Your task to perform on an android device: turn off priority inbox in the gmail app Image 0: 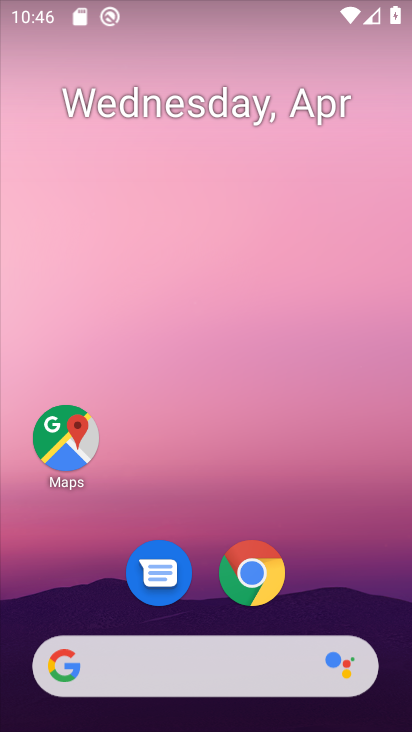
Step 0: drag from (365, 486) to (363, 8)
Your task to perform on an android device: turn off priority inbox in the gmail app Image 1: 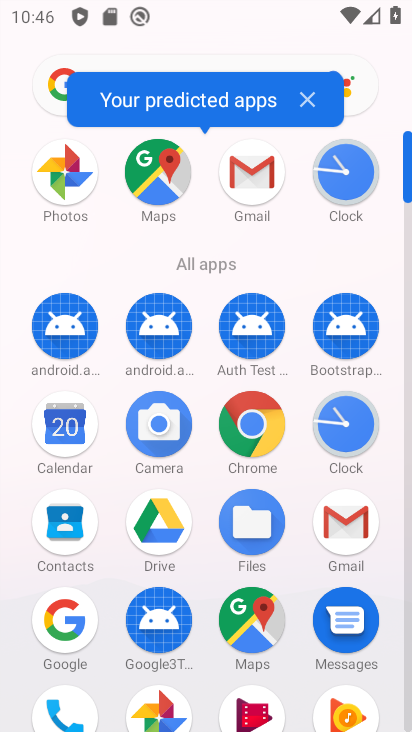
Step 1: click (251, 179)
Your task to perform on an android device: turn off priority inbox in the gmail app Image 2: 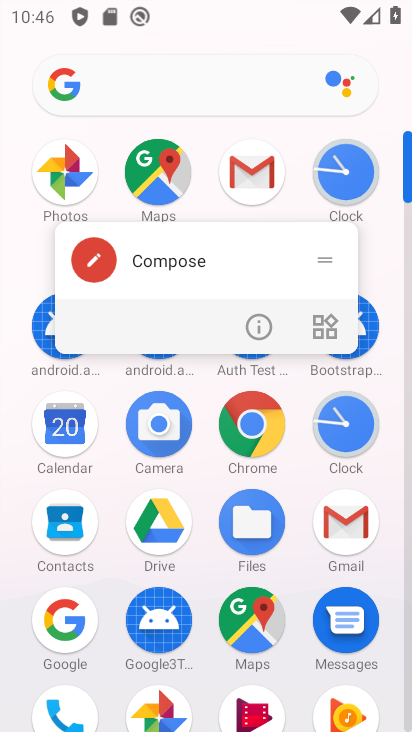
Step 2: click (254, 177)
Your task to perform on an android device: turn off priority inbox in the gmail app Image 3: 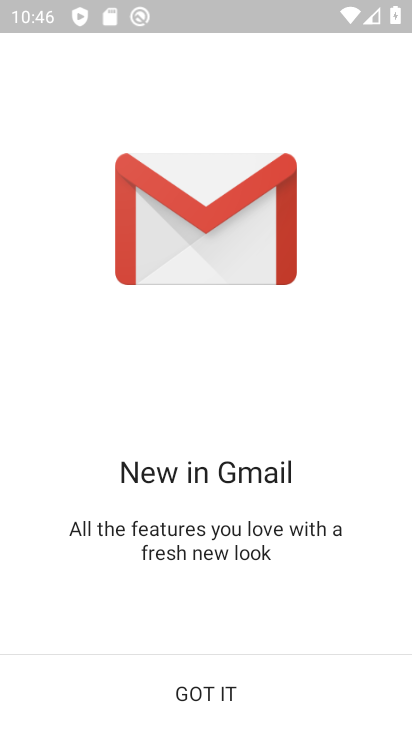
Step 3: click (192, 696)
Your task to perform on an android device: turn off priority inbox in the gmail app Image 4: 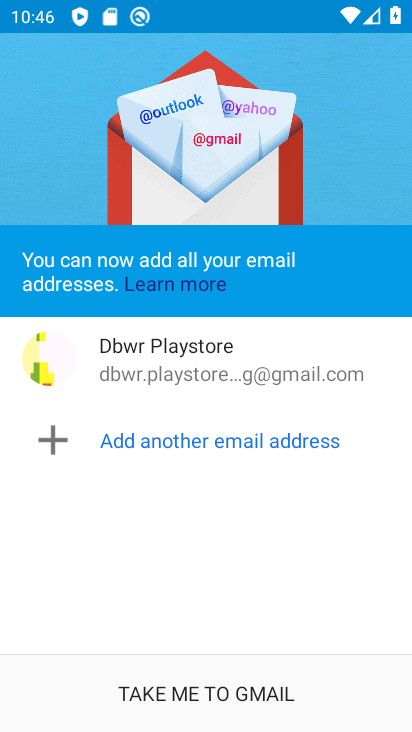
Step 4: click (192, 696)
Your task to perform on an android device: turn off priority inbox in the gmail app Image 5: 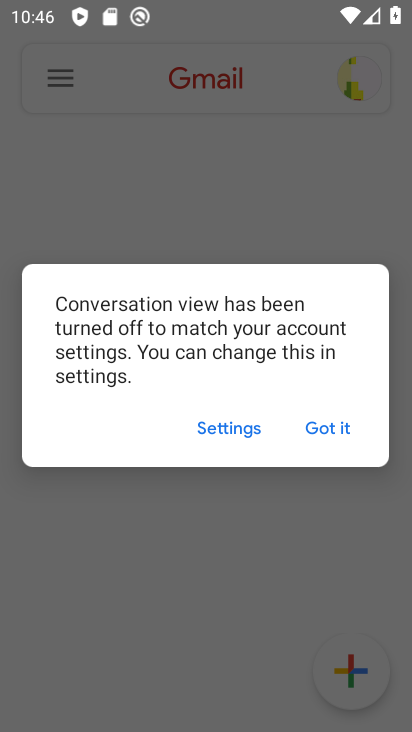
Step 5: click (330, 431)
Your task to perform on an android device: turn off priority inbox in the gmail app Image 6: 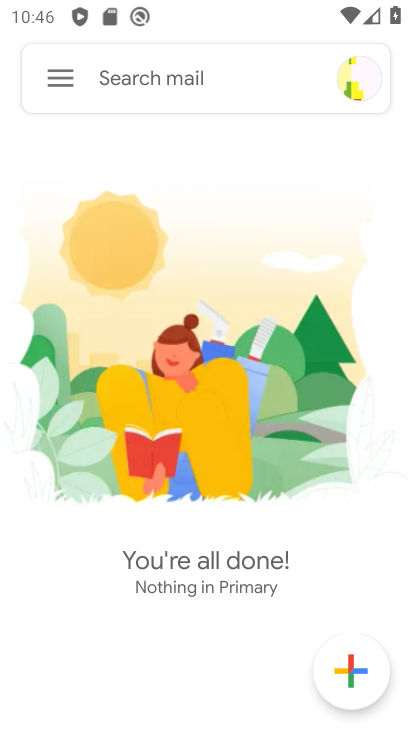
Step 6: click (60, 87)
Your task to perform on an android device: turn off priority inbox in the gmail app Image 7: 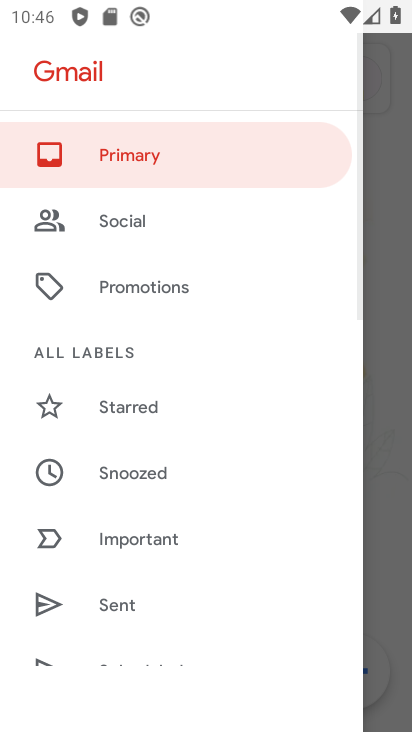
Step 7: drag from (180, 556) to (144, 145)
Your task to perform on an android device: turn off priority inbox in the gmail app Image 8: 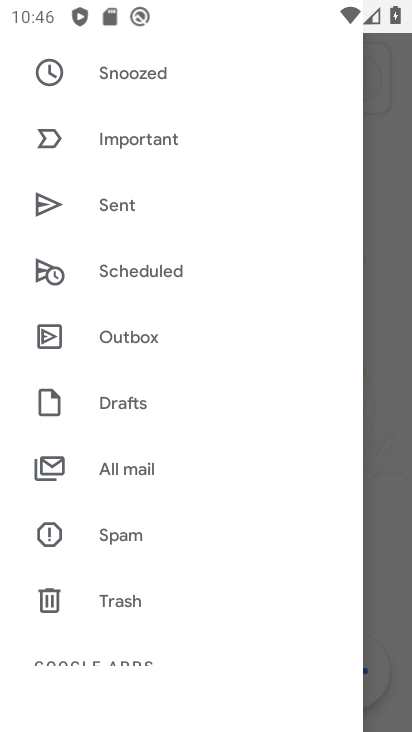
Step 8: drag from (176, 544) to (173, 116)
Your task to perform on an android device: turn off priority inbox in the gmail app Image 9: 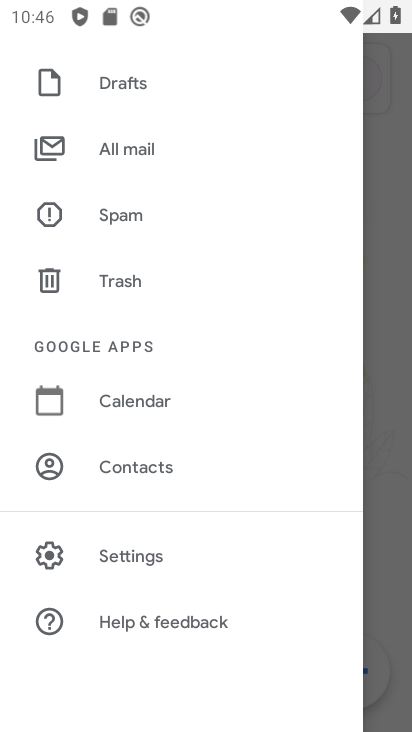
Step 9: click (140, 561)
Your task to perform on an android device: turn off priority inbox in the gmail app Image 10: 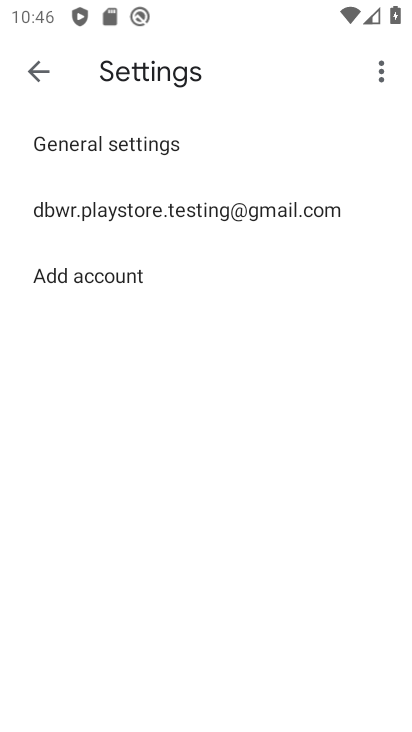
Step 10: click (129, 212)
Your task to perform on an android device: turn off priority inbox in the gmail app Image 11: 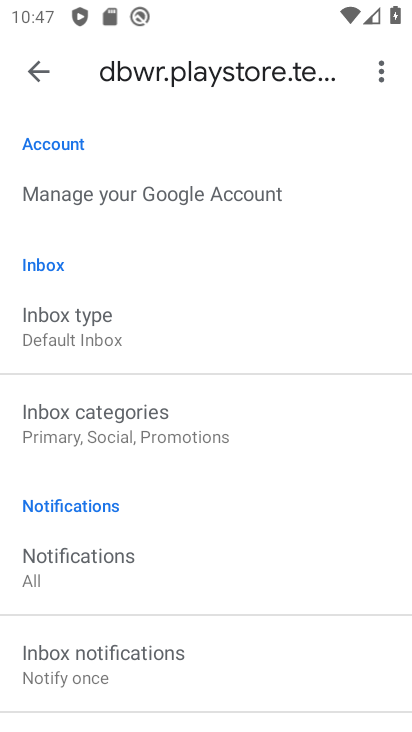
Step 11: click (76, 331)
Your task to perform on an android device: turn off priority inbox in the gmail app Image 12: 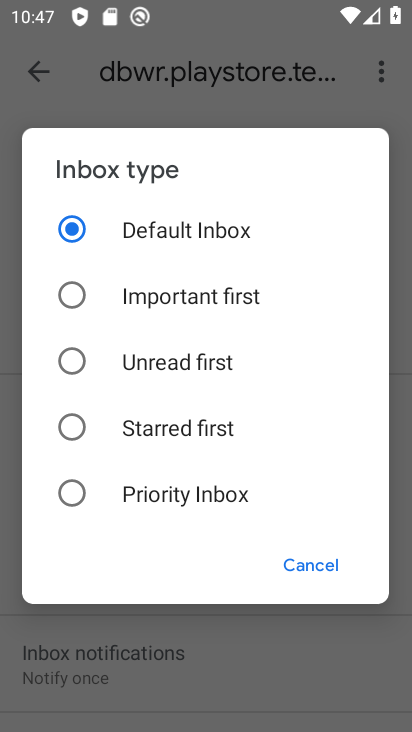
Step 12: task complete